Your task to perform on an android device: check out phone information Image 0: 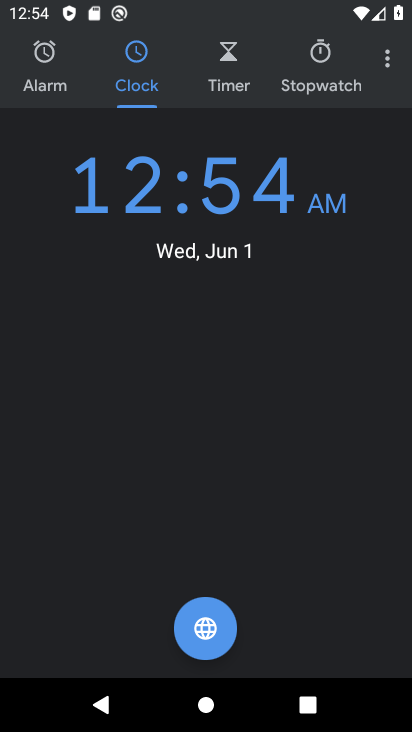
Step 0: press home button
Your task to perform on an android device: check out phone information Image 1: 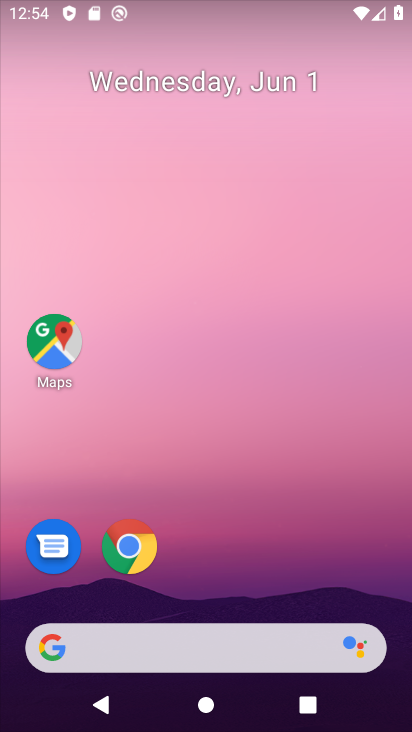
Step 1: drag from (203, 615) to (207, 6)
Your task to perform on an android device: check out phone information Image 2: 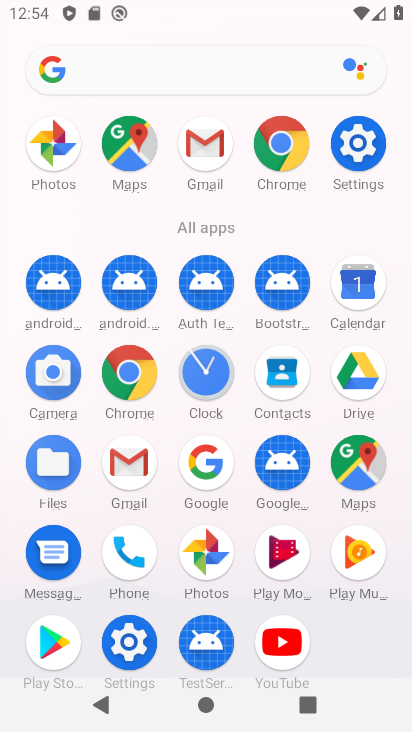
Step 2: click (357, 143)
Your task to perform on an android device: check out phone information Image 3: 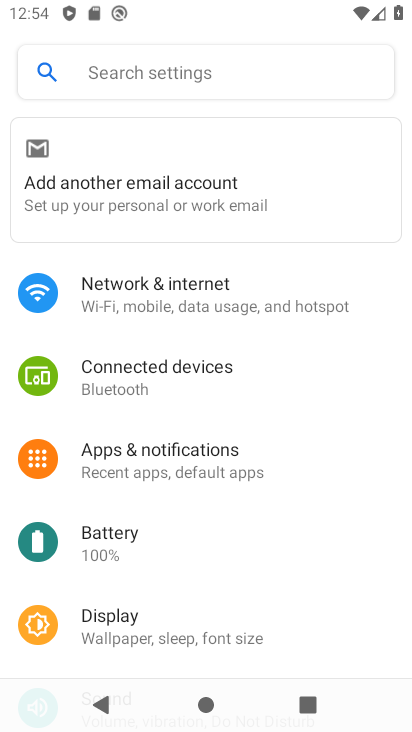
Step 3: drag from (155, 586) to (109, 87)
Your task to perform on an android device: check out phone information Image 4: 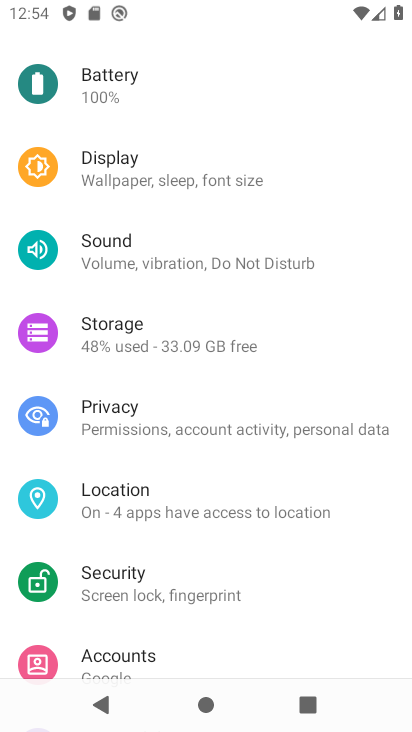
Step 4: drag from (213, 580) to (177, 134)
Your task to perform on an android device: check out phone information Image 5: 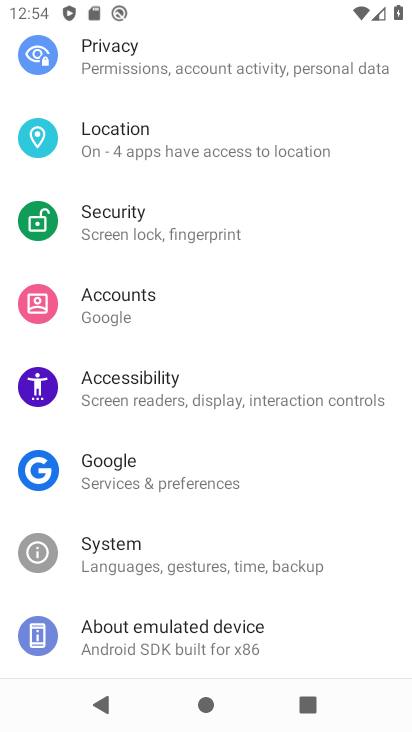
Step 5: click (208, 655)
Your task to perform on an android device: check out phone information Image 6: 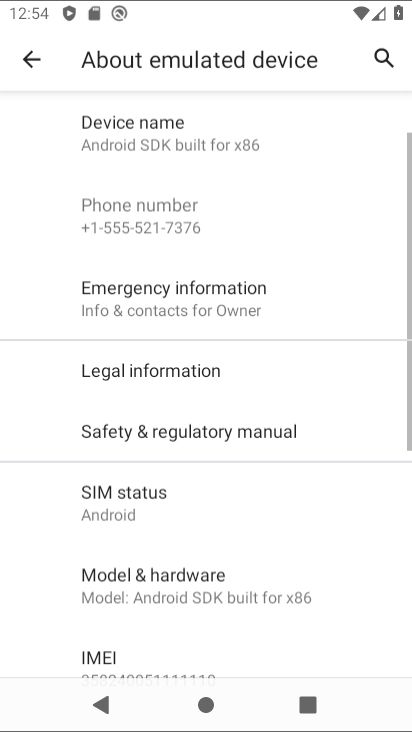
Step 6: task complete